Your task to perform on an android device: Open privacy settings Image 0: 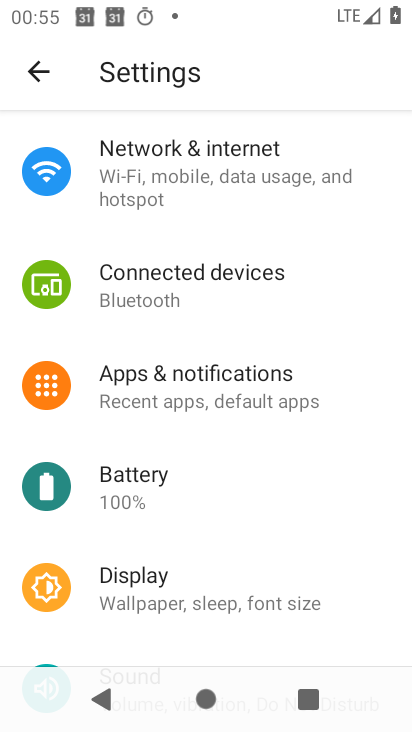
Step 0: drag from (207, 476) to (228, 179)
Your task to perform on an android device: Open privacy settings Image 1: 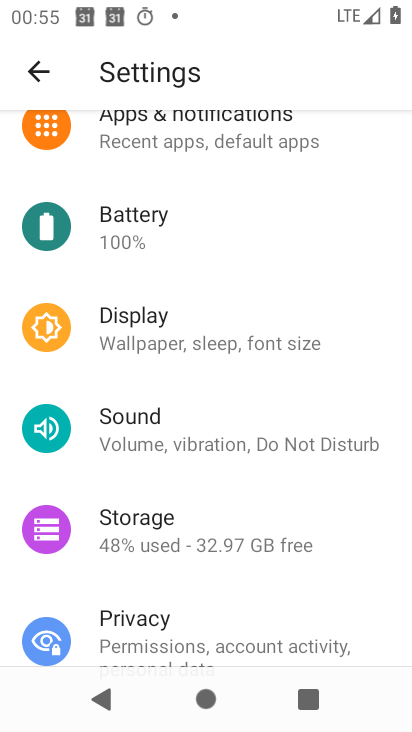
Step 1: click (140, 633)
Your task to perform on an android device: Open privacy settings Image 2: 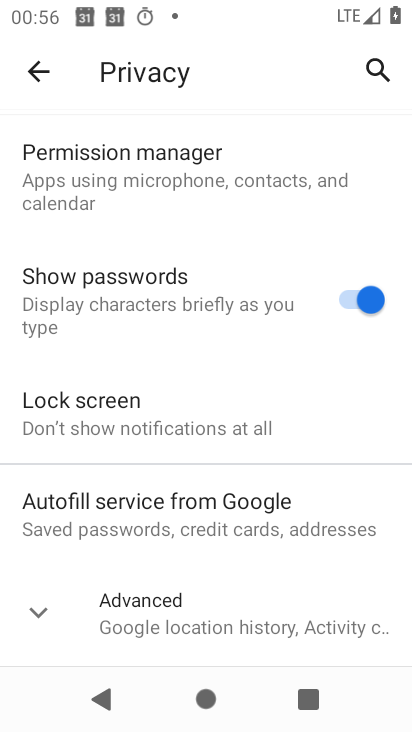
Step 2: task complete